Your task to perform on an android device: check storage Image 0: 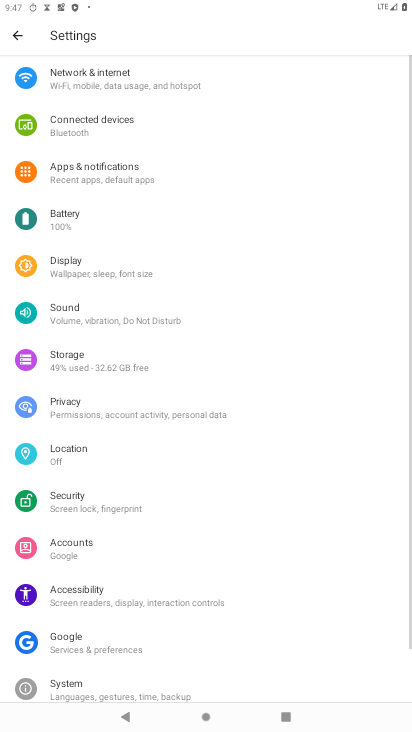
Step 0: press home button
Your task to perform on an android device: check storage Image 1: 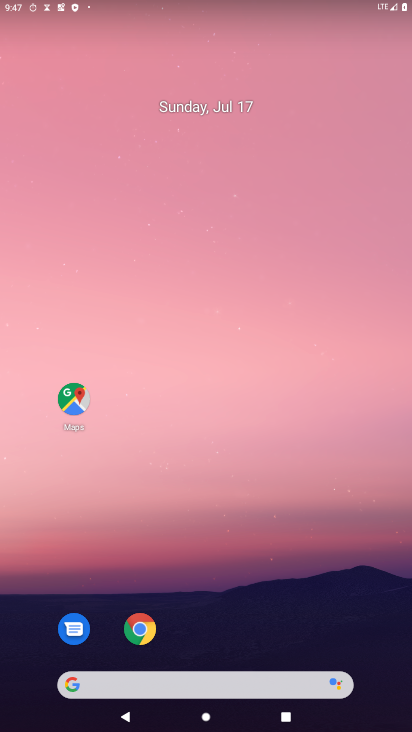
Step 1: drag from (241, 595) to (241, 239)
Your task to perform on an android device: check storage Image 2: 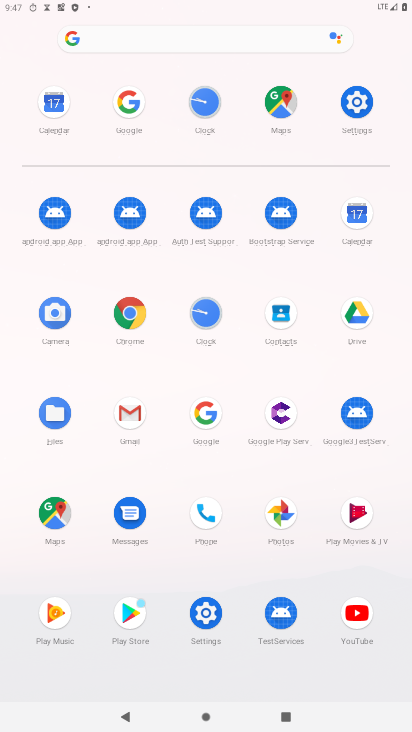
Step 2: click (363, 102)
Your task to perform on an android device: check storage Image 3: 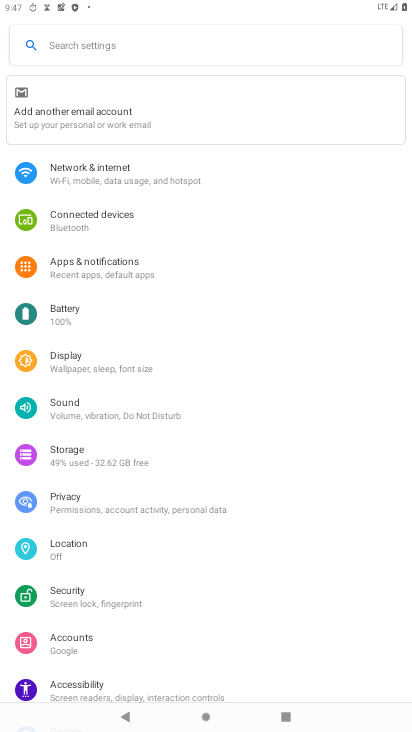
Step 3: click (85, 453)
Your task to perform on an android device: check storage Image 4: 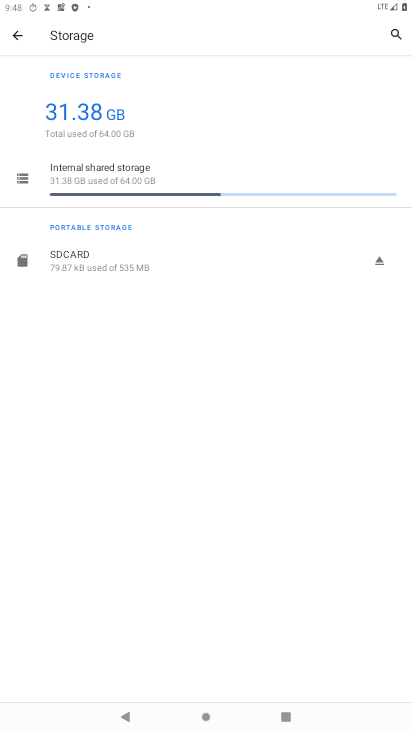
Step 4: task complete